Your task to perform on an android device: Open CNN.com Image 0: 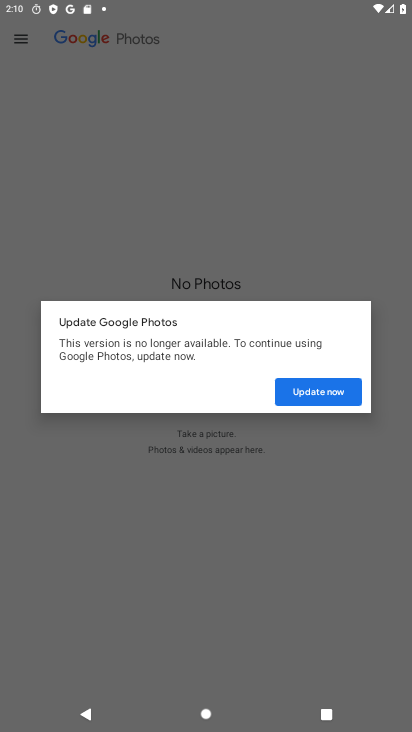
Step 0: press home button
Your task to perform on an android device: Open CNN.com Image 1: 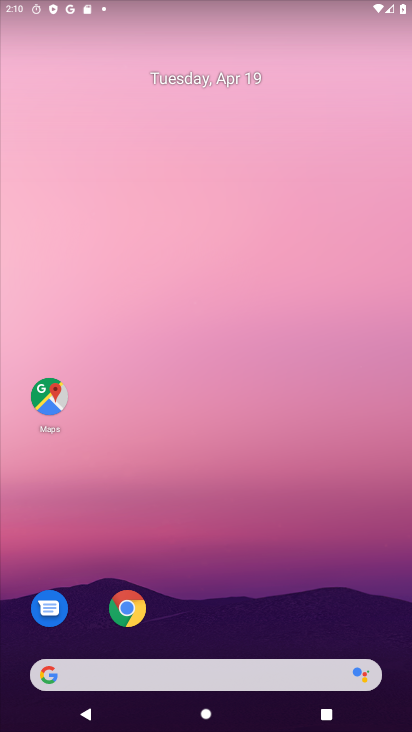
Step 1: click (129, 614)
Your task to perform on an android device: Open CNN.com Image 2: 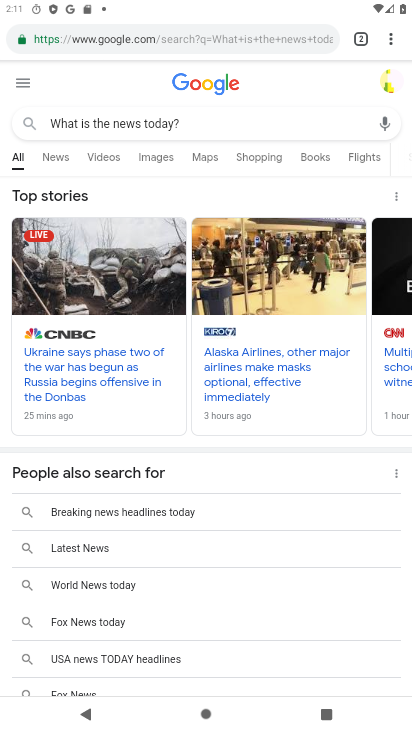
Step 2: click (236, 125)
Your task to perform on an android device: Open CNN.com Image 3: 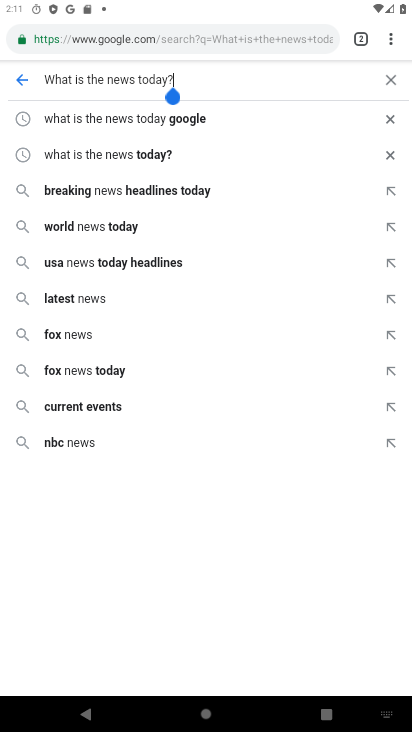
Step 3: click (387, 81)
Your task to perform on an android device: Open CNN.com Image 4: 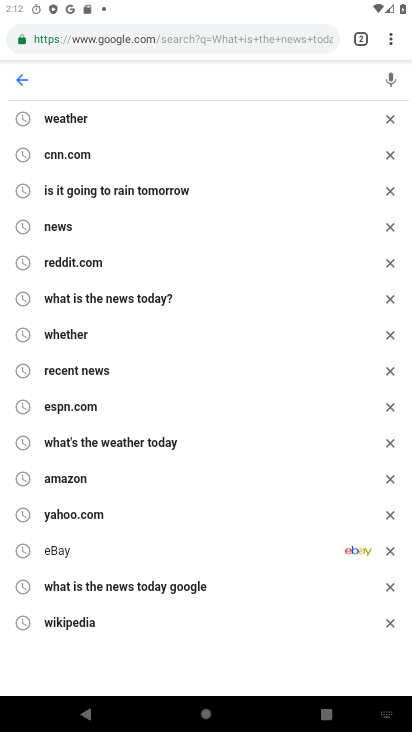
Step 4: click (238, 75)
Your task to perform on an android device: Open CNN.com Image 5: 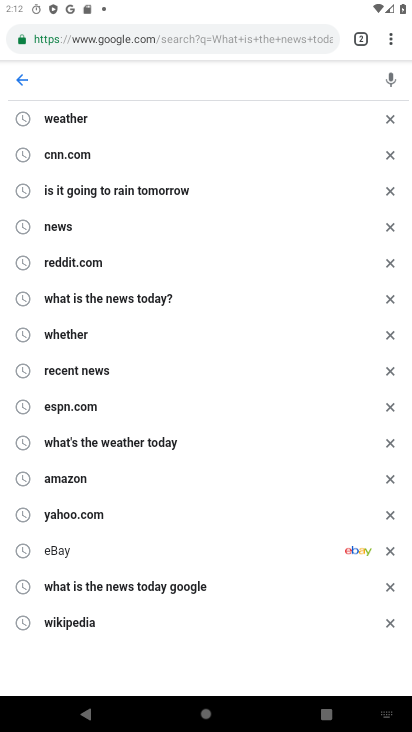
Step 5: type "CNN.com"
Your task to perform on an android device: Open CNN.com Image 6: 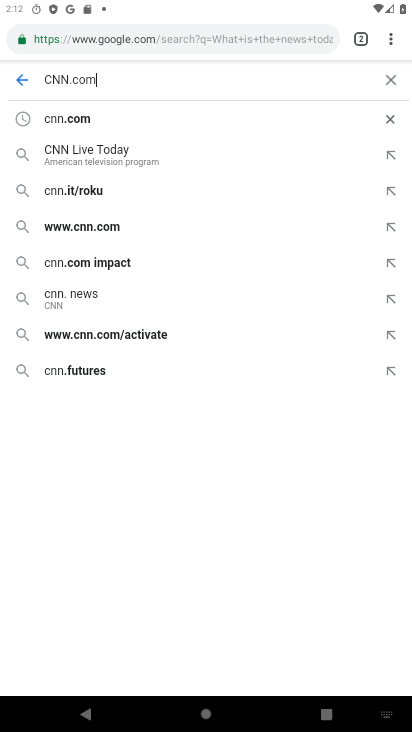
Step 6: type ""
Your task to perform on an android device: Open CNN.com Image 7: 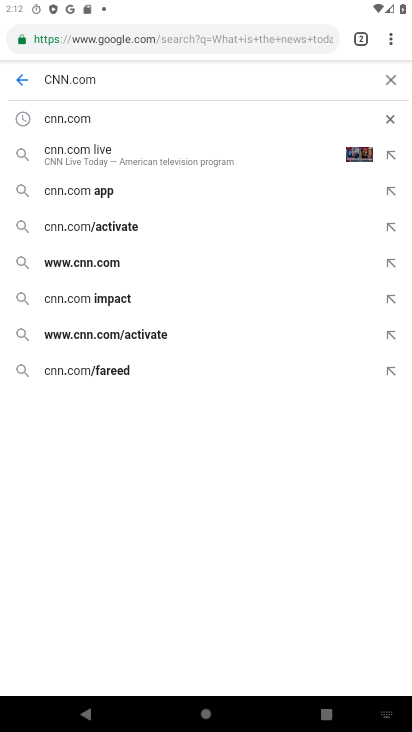
Step 7: click (78, 119)
Your task to perform on an android device: Open CNN.com Image 8: 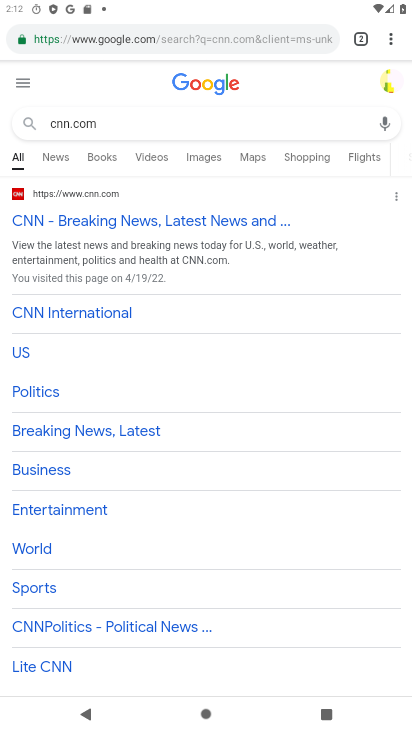
Step 8: click (91, 215)
Your task to perform on an android device: Open CNN.com Image 9: 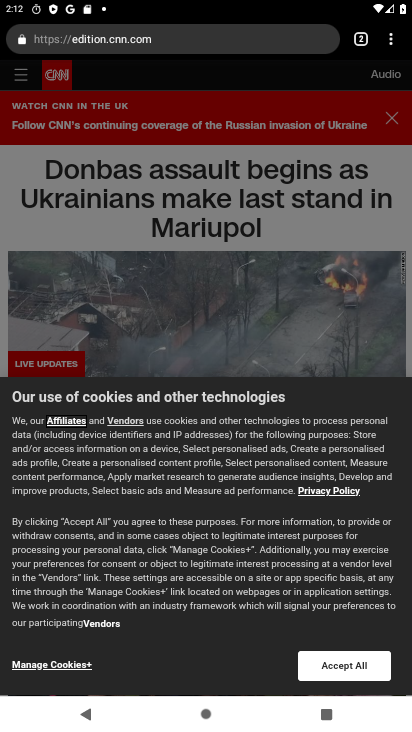
Step 9: task complete